Your task to perform on an android device: Search for pizza restaurants on Maps Image 0: 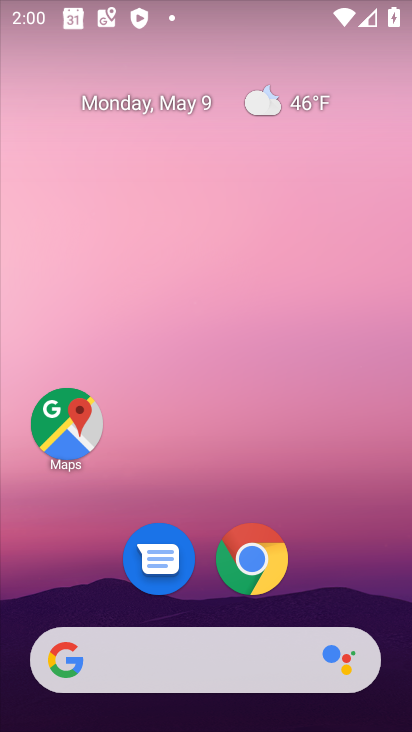
Step 0: drag from (351, 578) to (357, 162)
Your task to perform on an android device: Search for pizza restaurants on Maps Image 1: 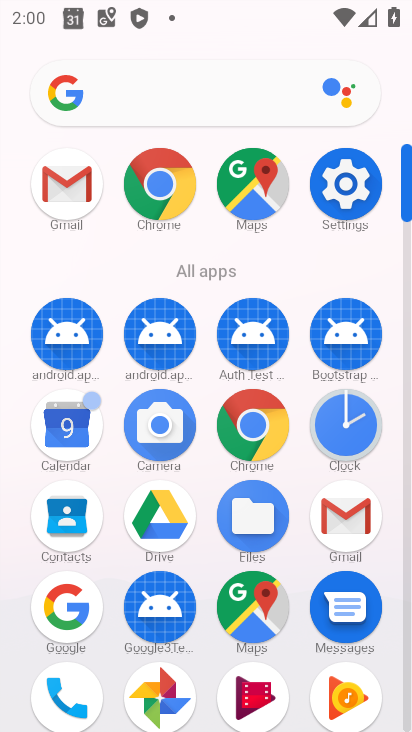
Step 1: click (254, 618)
Your task to perform on an android device: Search for pizza restaurants on Maps Image 2: 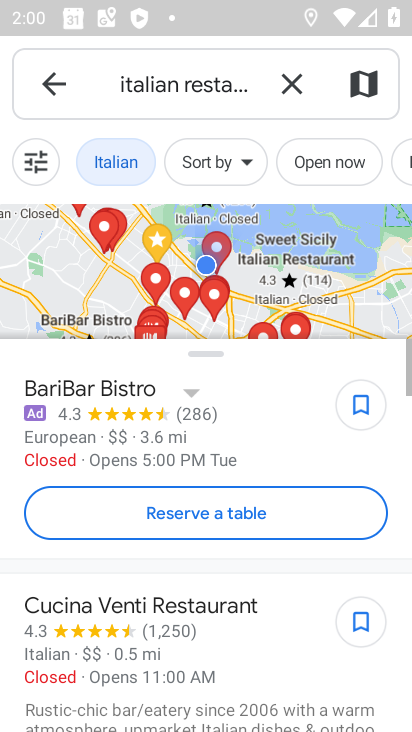
Step 2: click (282, 89)
Your task to perform on an android device: Search for pizza restaurants on Maps Image 3: 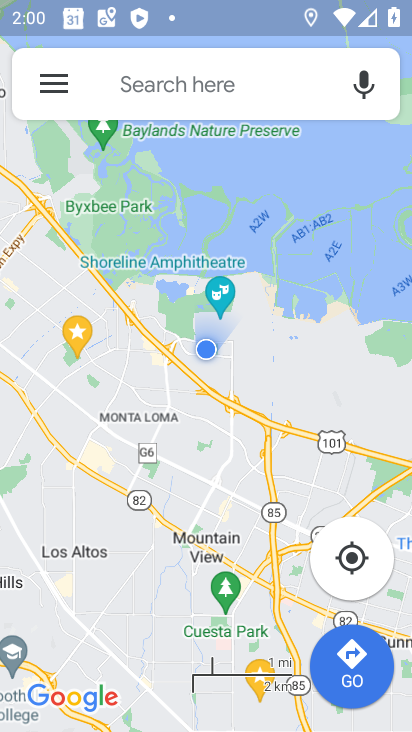
Step 3: click (212, 92)
Your task to perform on an android device: Search for pizza restaurants on Maps Image 4: 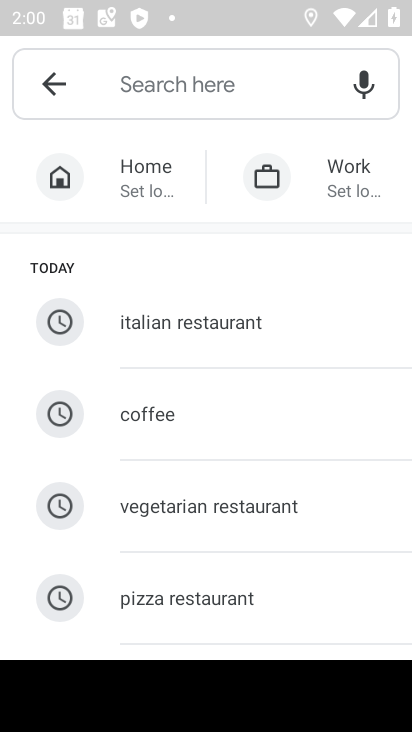
Step 4: click (236, 594)
Your task to perform on an android device: Search for pizza restaurants on Maps Image 5: 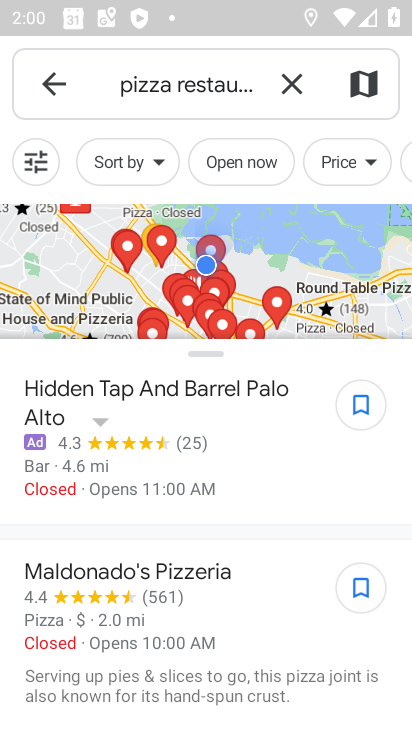
Step 5: task complete